Your task to perform on an android device: all mails in gmail Image 0: 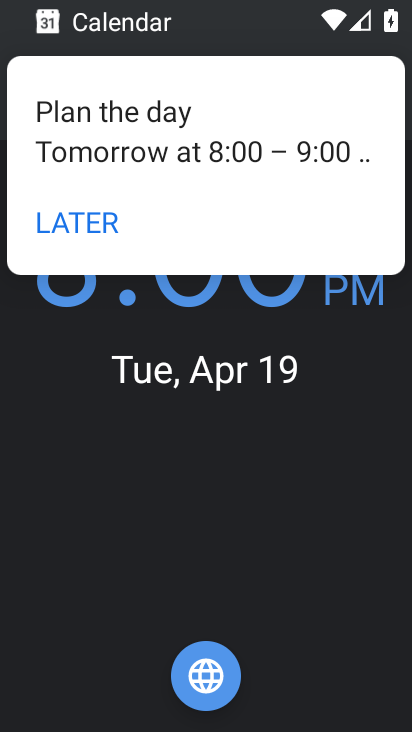
Step 0: press home button
Your task to perform on an android device: all mails in gmail Image 1: 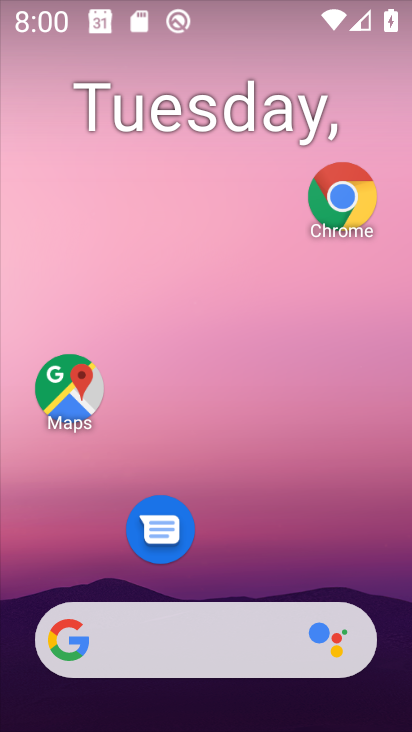
Step 1: drag from (248, 536) to (388, 3)
Your task to perform on an android device: all mails in gmail Image 2: 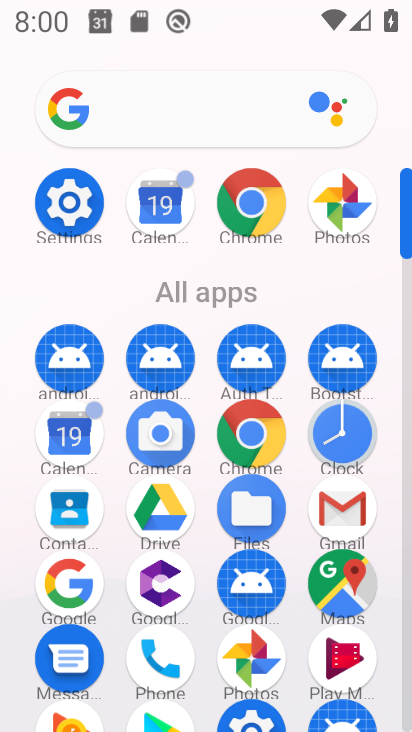
Step 2: click (349, 520)
Your task to perform on an android device: all mails in gmail Image 3: 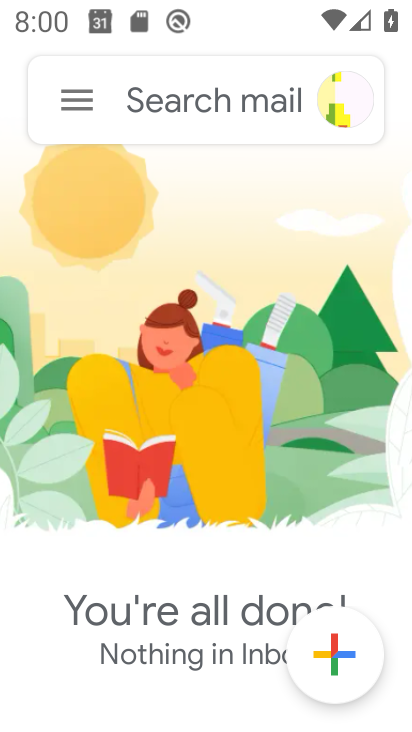
Step 3: click (68, 90)
Your task to perform on an android device: all mails in gmail Image 4: 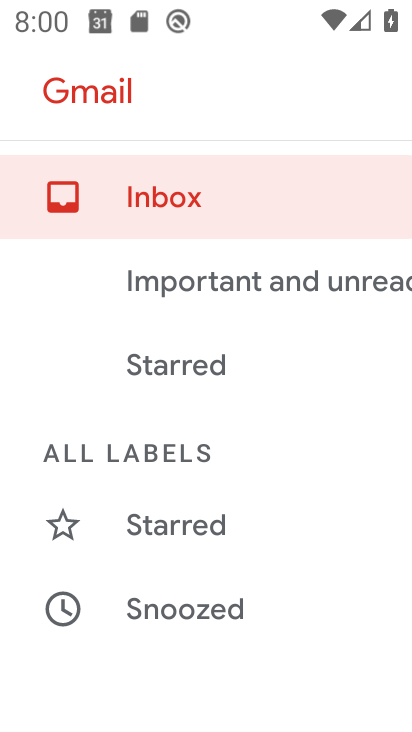
Step 4: drag from (146, 509) to (257, 0)
Your task to perform on an android device: all mails in gmail Image 5: 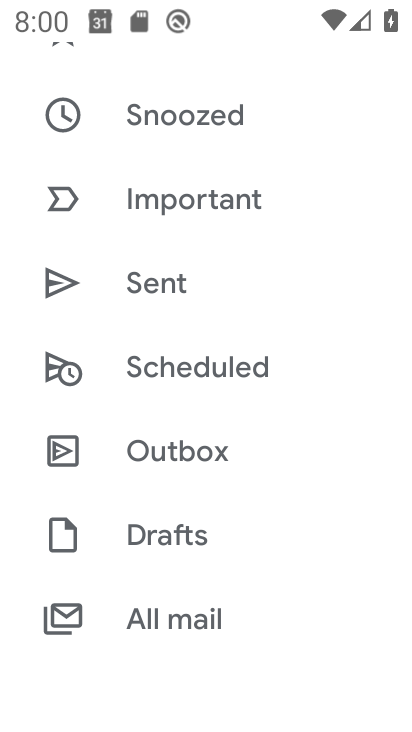
Step 5: click (140, 620)
Your task to perform on an android device: all mails in gmail Image 6: 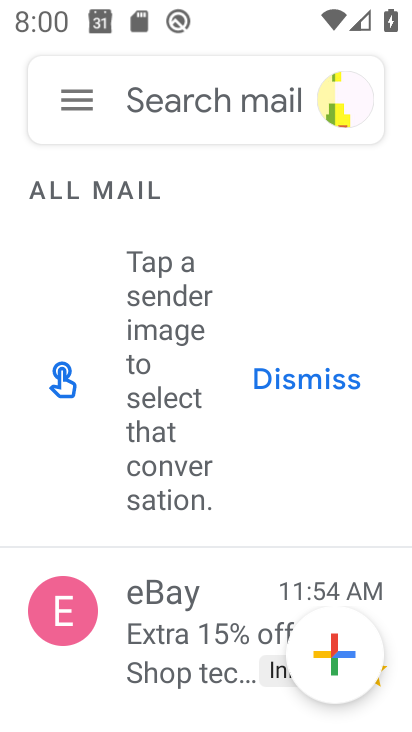
Step 6: task complete